Your task to perform on an android device: Go to accessibility settings Image 0: 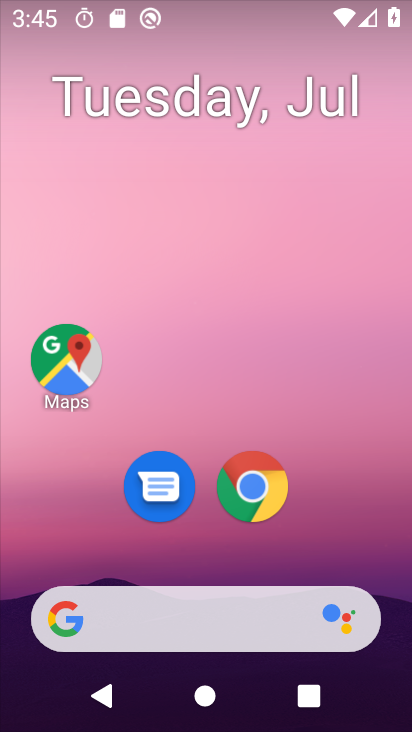
Step 0: drag from (363, 515) to (345, 62)
Your task to perform on an android device: Go to accessibility settings Image 1: 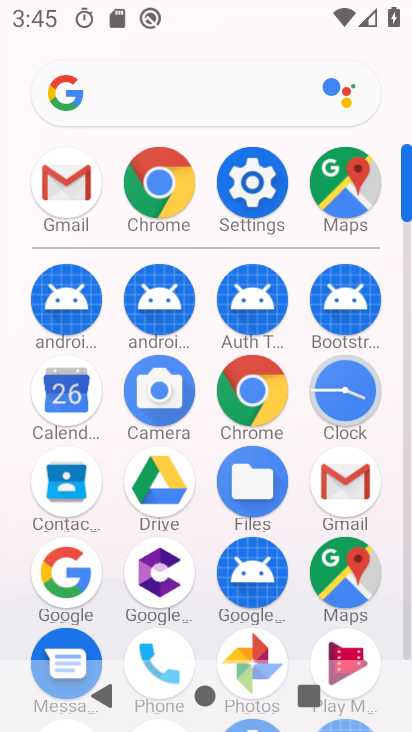
Step 1: click (252, 194)
Your task to perform on an android device: Go to accessibility settings Image 2: 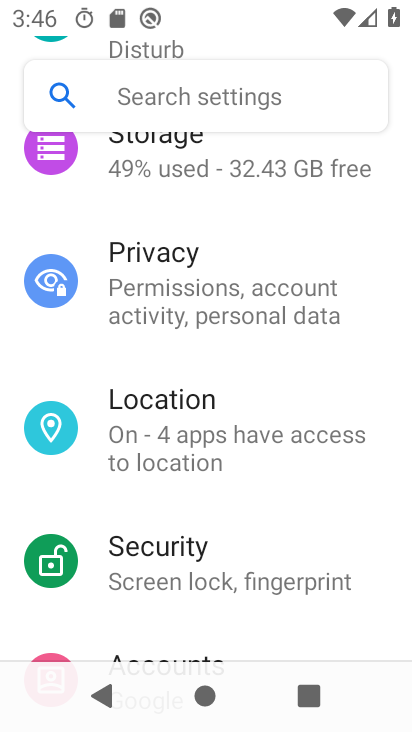
Step 2: drag from (355, 463) to (349, 267)
Your task to perform on an android device: Go to accessibility settings Image 3: 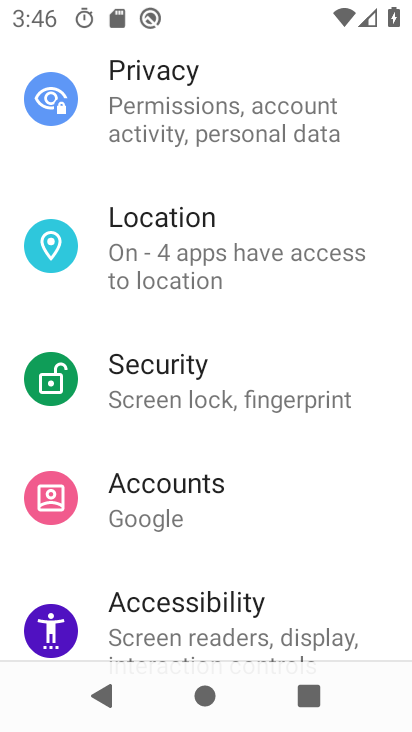
Step 3: drag from (314, 436) to (318, 211)
Your task to perform on an android device: Go to accessibility settings Image 4: 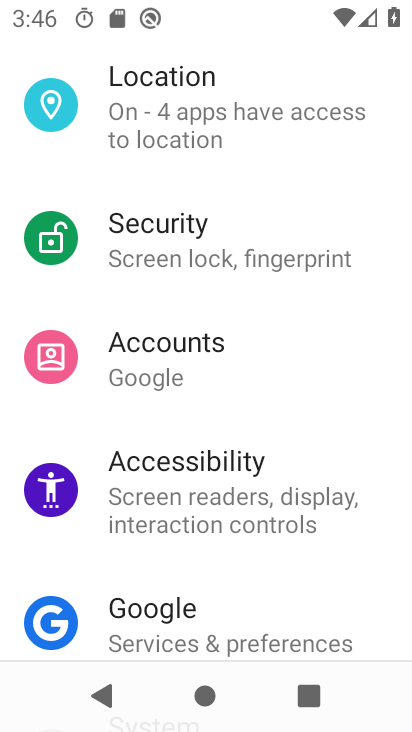
Step 4: drag from (339, 499) to (341, 403)
Your task to perform on an android device: Go to accessibility settings Image 5: 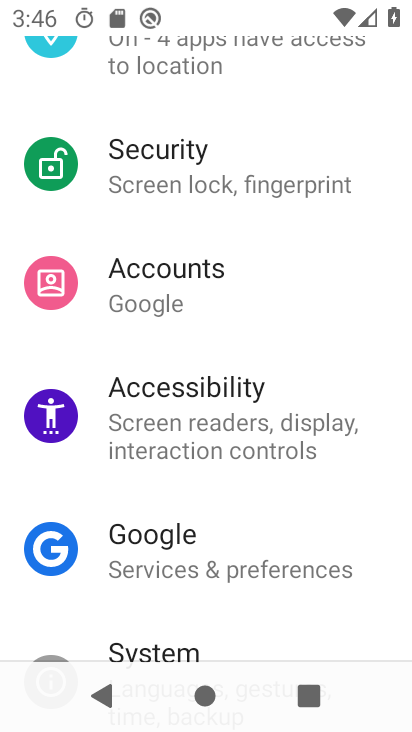
Step 5: drag from (348, 505) to (348, 314)
Your task to perform on an android device: Go to accessibility settings Image 6: 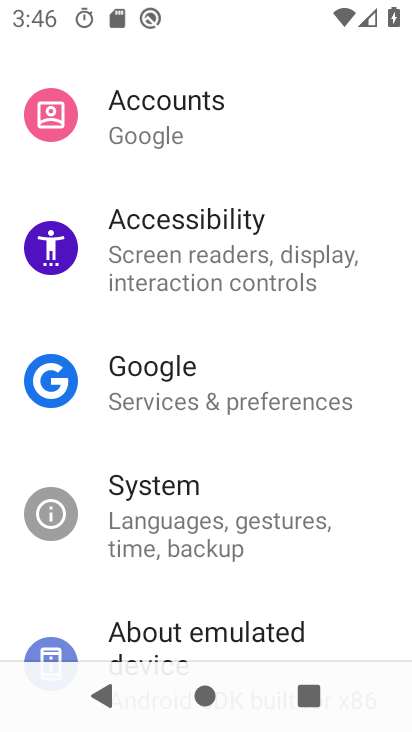
Step 6: drag from (348, 534) to (349, 322)
Your task to perform on an android device: Go to accessibility settings Image 7: 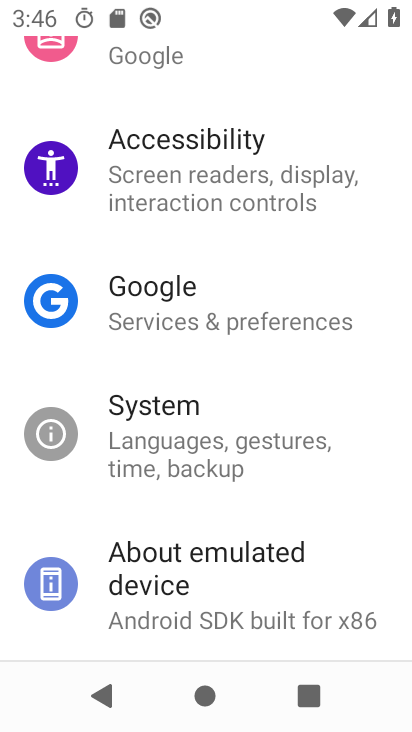
Step 7: drag from (359, 534) to (358, 413)
Your task to perform on an android device: Go to accessibility settings Image 8: 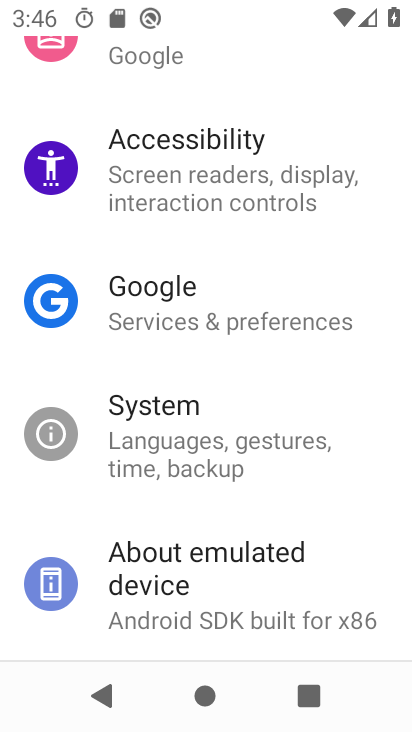
Step 8: drag from (354, 229) to (353, 349)
Your task to perform on an android device: Go to accessibility settings Image 9: 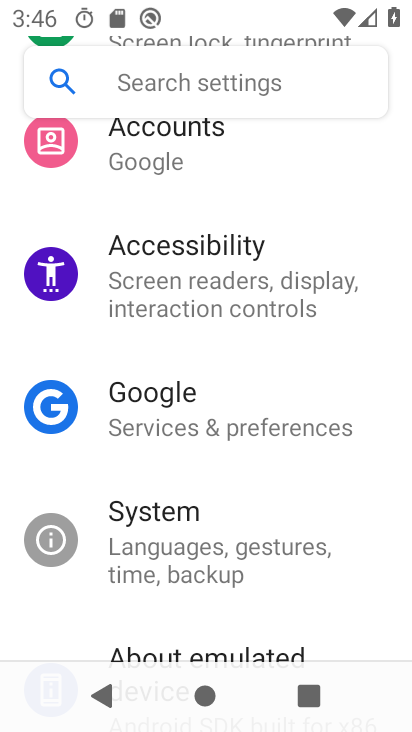
Step 9: drag from (372, 175) to (370, 325)
Your task to perform on an android device: Go to accessibility settings Image 10: 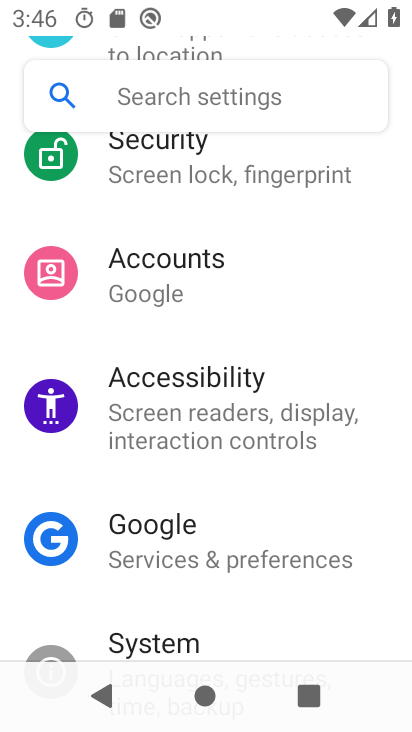
Step 10: drag from (365, 169) to (362, 332)
Your task to perform on an android device: Go to accessibility settings Image 11: 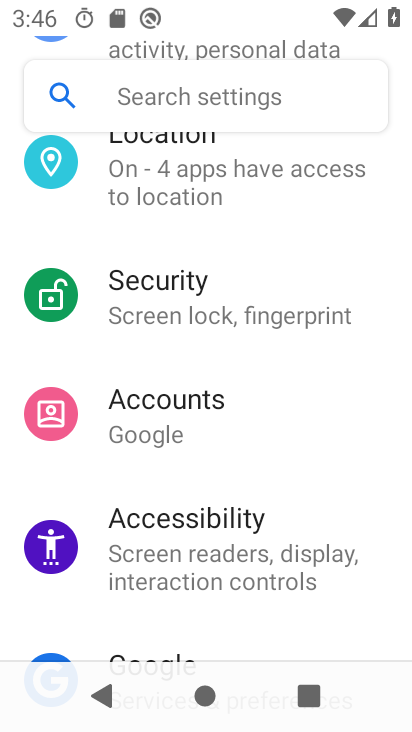
Step 11: drag from (360, 192) to (362, 377)
Your task to perform on an android device: Go to accessibility settings Image 12: 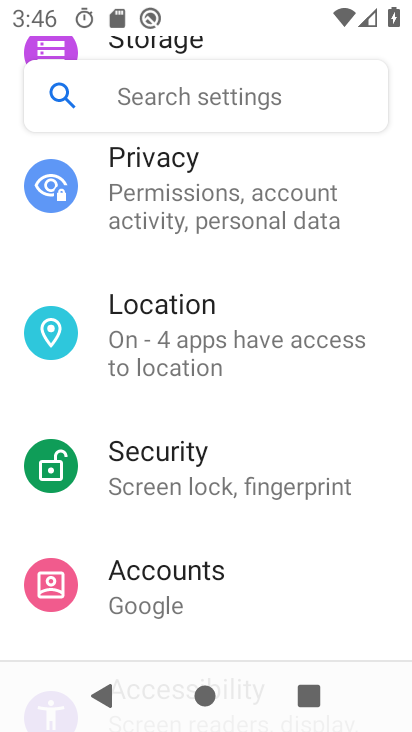
Step 12: drag from (374, 158) to (380, 326)
Your task to perform on an android device: Go to accessibility settings Image 13: 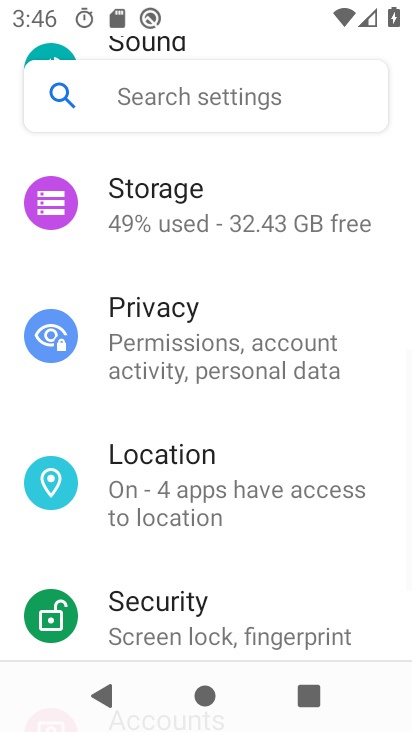
Step 13: drag from (386, 168) to (389, 347)
Your task to perform on an android device: Go to accessibility settings Image 14: 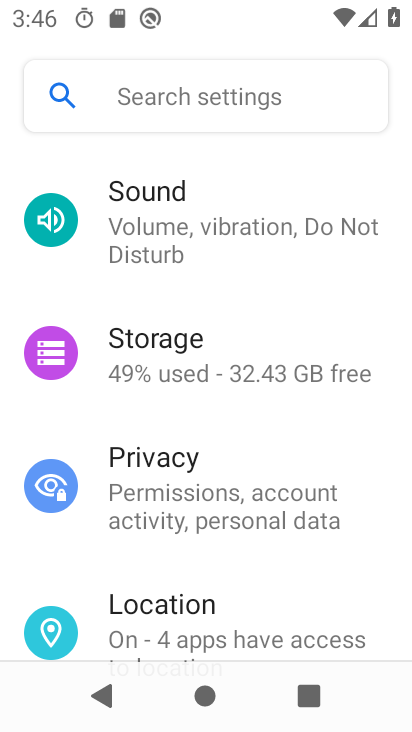
Step 14: drag from (391, 150) to (394, 347)
Your task to perform on an android device: Go to accessibility settings Image 15: 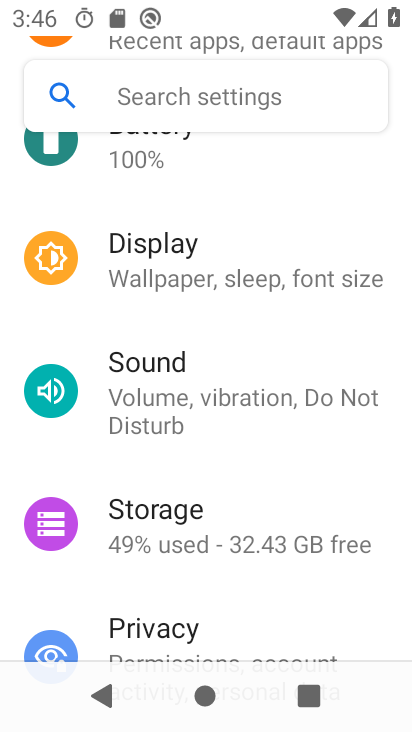
Step 15: drag from (370, 193) to (366, 427)
Your task to perform on an android device: Go to accessibility settings Image 16: 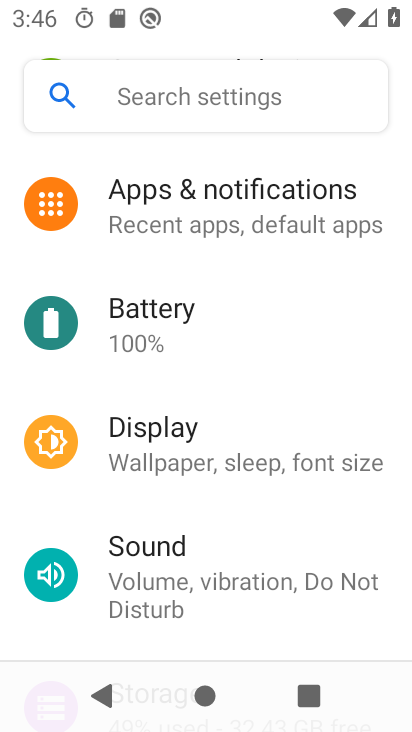
Step 16: drag from (366, 162) to (370, 439)
Your task to perform on an android device: Go to accessibility settings Image 17: 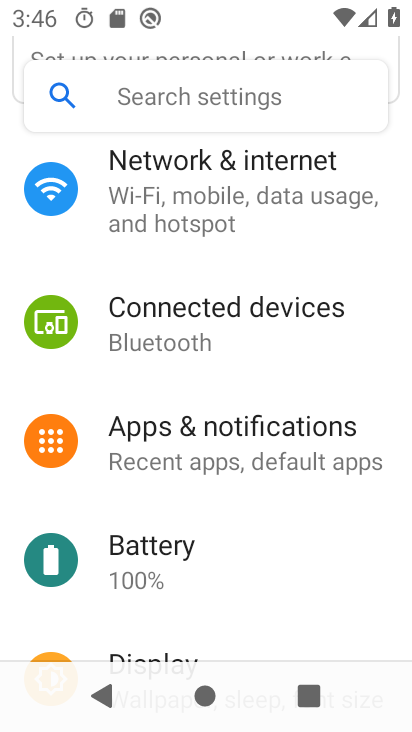
Step 17: drag from (355, 359) to (345, 234)
Your task to perform on an android device: Go to accessibility settings Image 18: 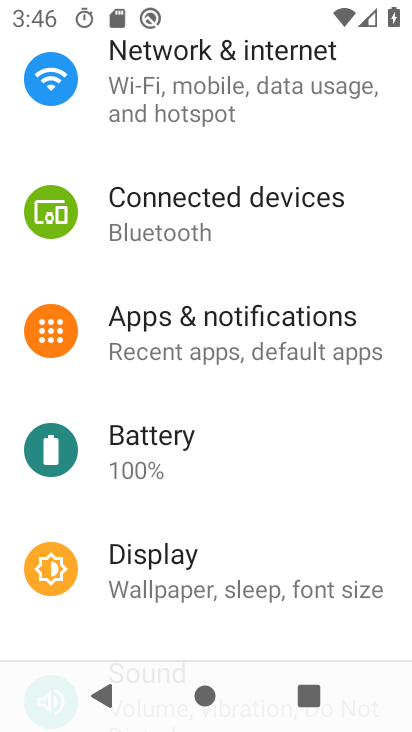
Step 18: drag from (327, 438) to (327, 282)
Your task to perform on an android device: Go to accessibility settings Image 19: 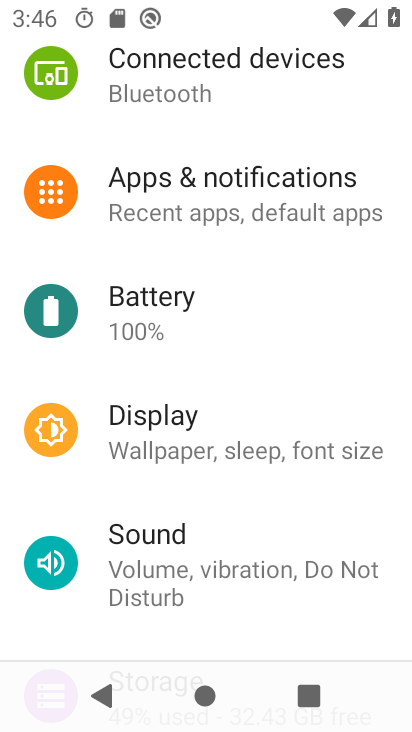
Step 19: drag from (320, 426) to (318, 247)
Your task to perform on an android device: Go to accessibility settings Image 20: 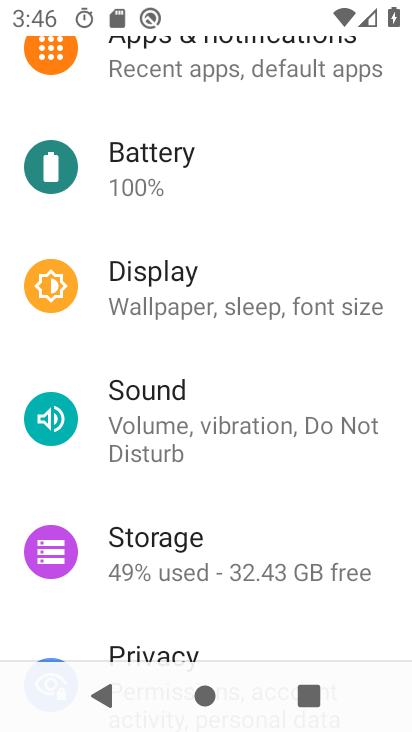
Step 20: drag from (316, 446) to (316, 299)
Your task to perform on an android device: Go to accessibility settings Image 21: 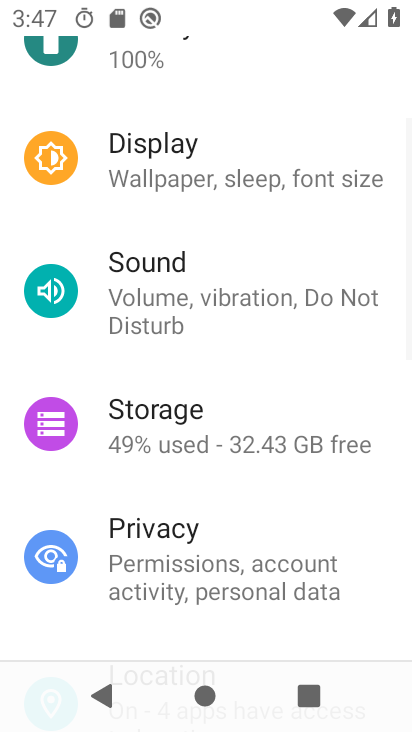
Step 21: drag from (324, 514) to (331, 287)
Your task to perform on an android device: Go to accessibility settings Image 22: 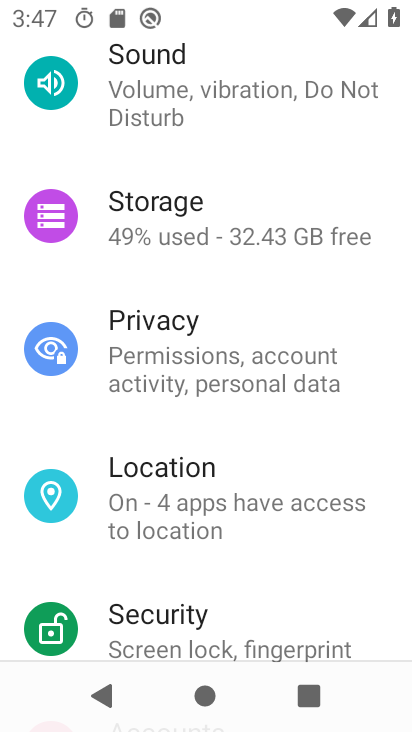
Step 22: drag from (301, 511) to (303, 340)
Your task to perform on an android device: Go to accessibility settings Image 23: 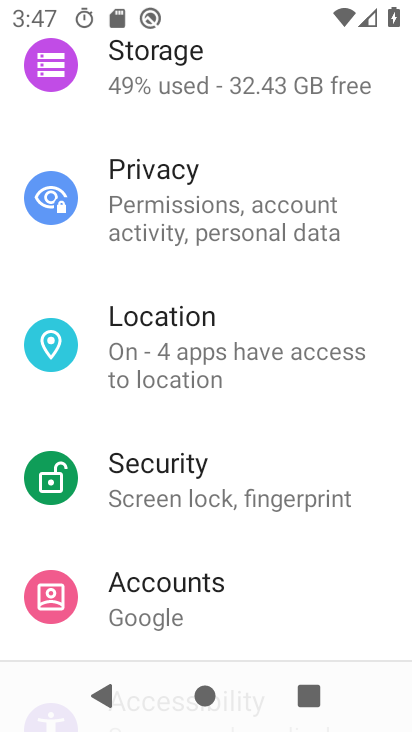
Step 23: drag from (306, 557) to (301, 375)
Your task to perform on an android device: Go to accessibility settings Image 24: 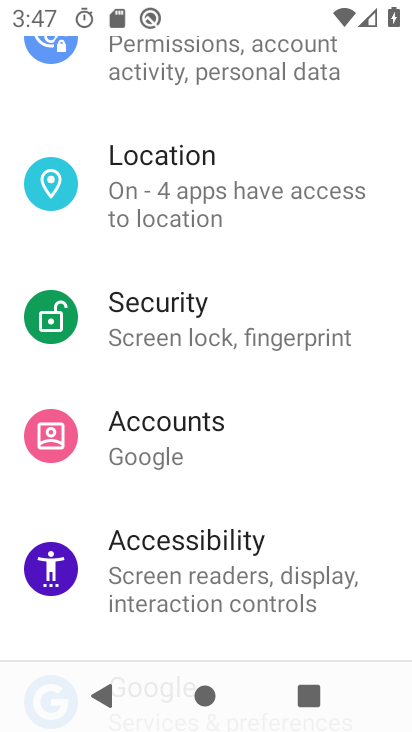
Step 24: click (296, 559)
Your task to perform on an android device: Go to accessibility settings Image 25: 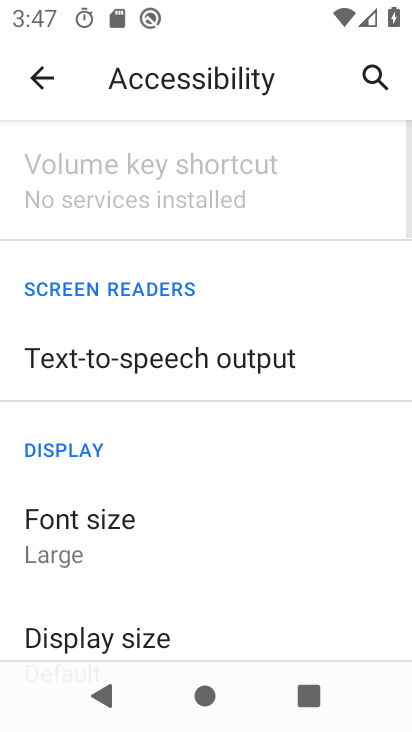
Step 25: task complete